Your task to perform on an android device: Search for seafood restaurants on Google Maps Image 0: 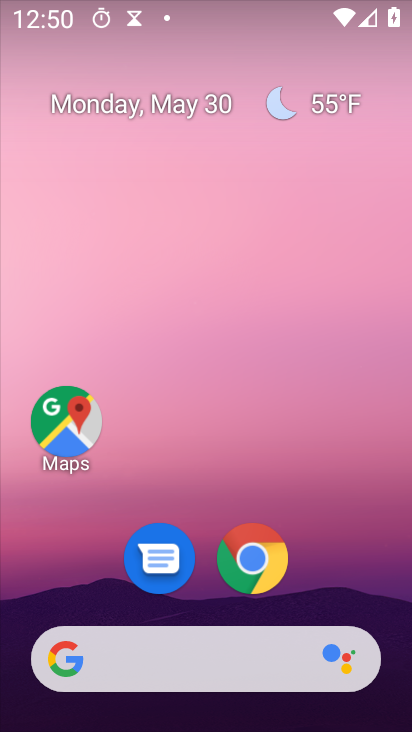
Step 0: drag from (335, 552) to (403, 4)
Your task to perform on an android device: Search for seafood restaurants on Google Maps Image 1: 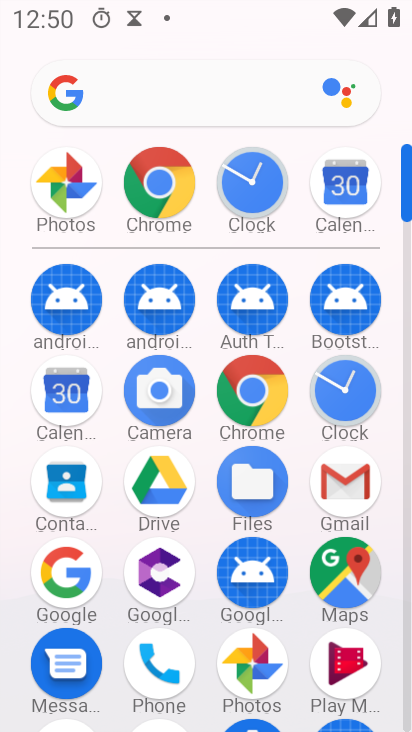
Step 1: click (345, 571)
Your task to perform on an android device: Search for seafood restaurants on Google Maps Image 2: 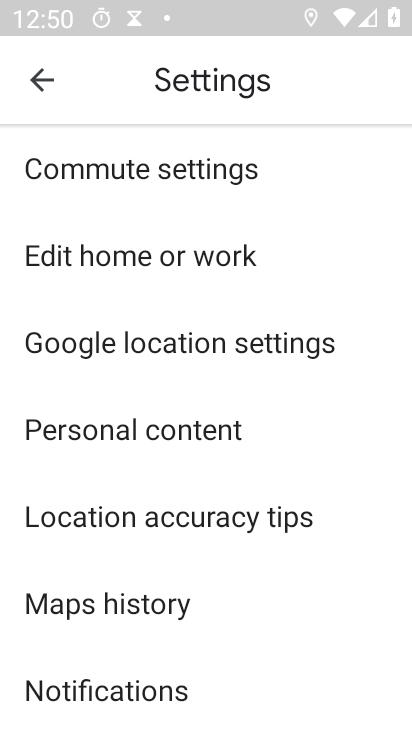
Step 2: press home button
Your task to perform on an android device: Search for seafood restaurants on Google Maps Image 3: 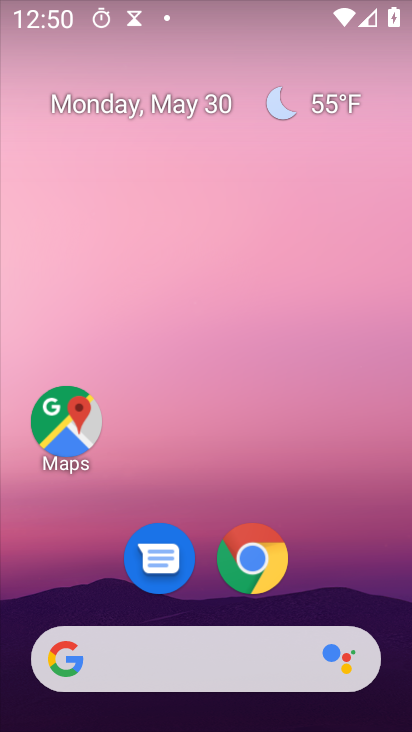
Step 3: drag from (382, 520) to (408, 124)
Your task to perform on an android device: Search for seafood restaurants on Google Maps Image 4: 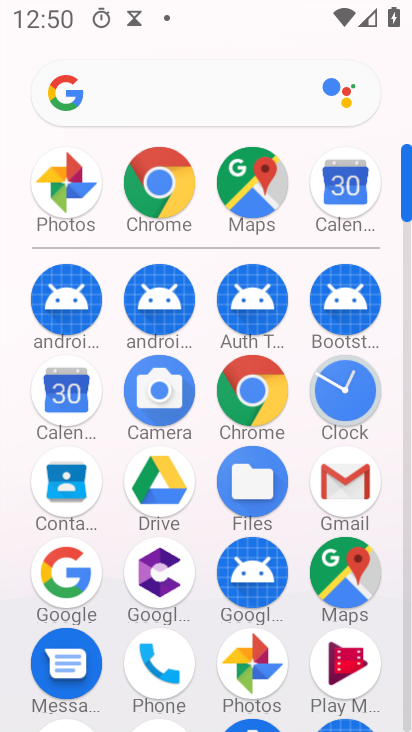
Step 4: click (243, 179)
Your task to perform on an android device: Search for seafood restaurants on Google Maps Image 5: 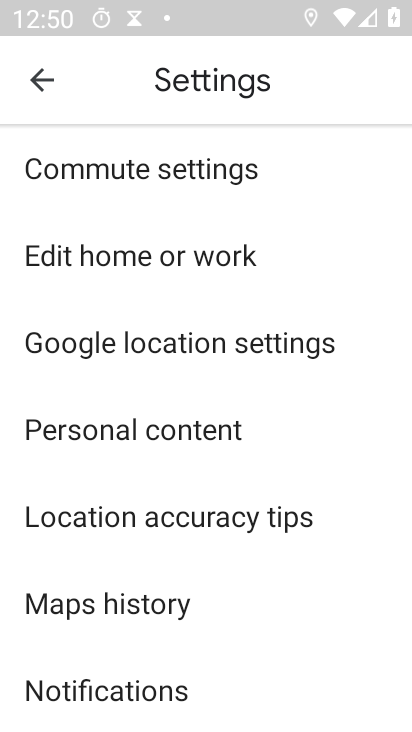
Step 5: click (49, 86)
Your task to perform on an android device: Search for seafood restaurants on Google Maps Image 6: 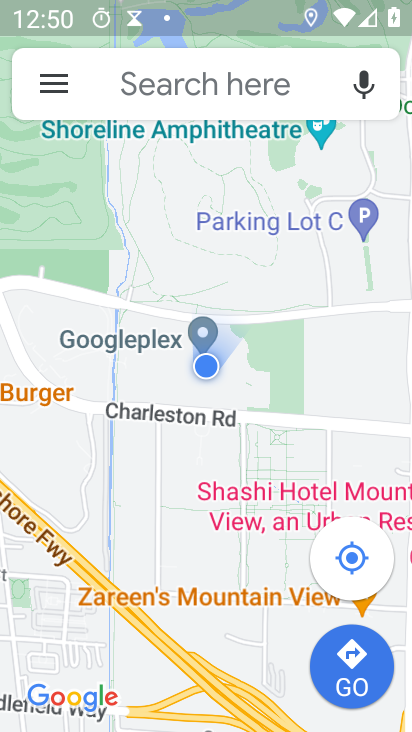
Step 6: click (192, 67)
Your task to perform on an android device: Search for seafood restaurants on Google Maps Image 7: 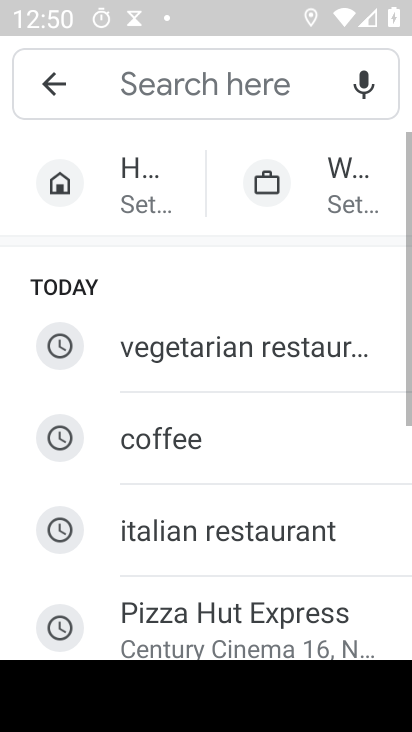
Step 7: drag from (291, 550) to (370, 154)
Your task to perform on an android device: Search for seafood restaurants on Google Maps Image 8: 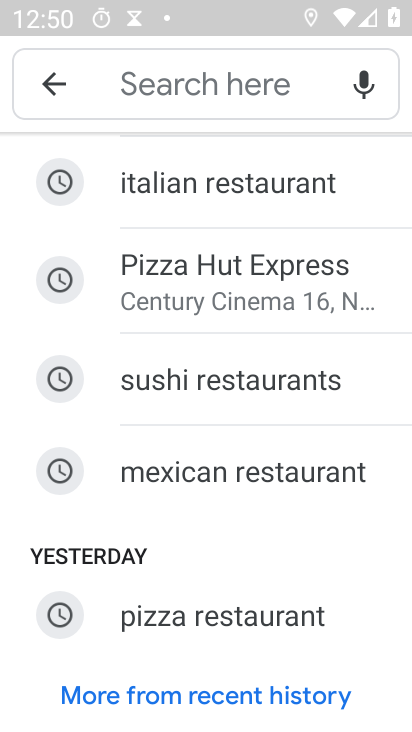
Step 8: drag from (251, 542) to (312, 195)
Your task to perform on an android device: Search for seafood restaurants on Google Maps Image 9: 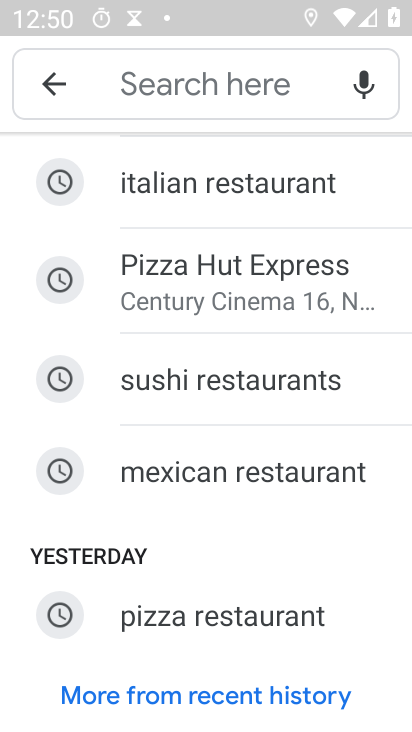
Step 9: drag from (224, 590) to (289, 228)
Your task to perform on an android device: Search for seafood restaurants on Google Maps Image 10: 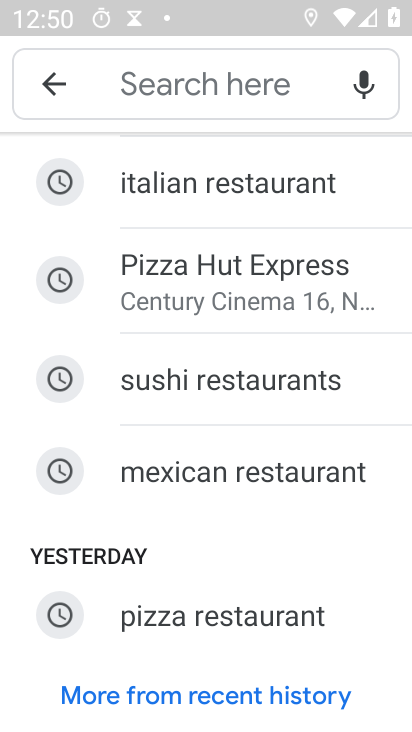
Step 10: drag from (215, 596) to (283, 214)
Your task to perform on an android device: Search for seafood restaurants on Google Maps Image 11: 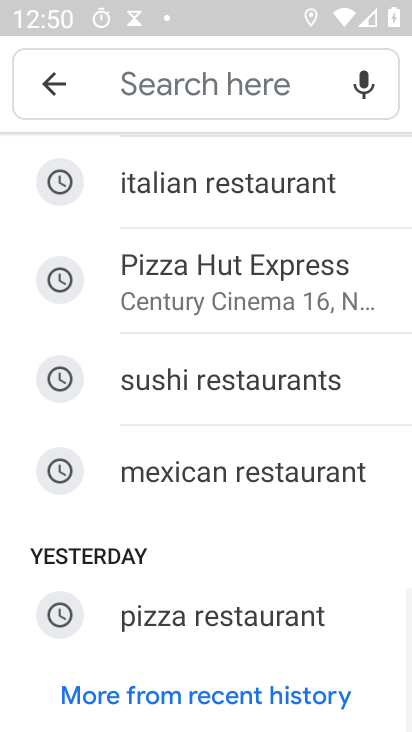
Step 11: drag from (219, 249) to (226, 593)
Your task to perform on an android device: Search for seafood restaurants on Google Maps Image 12: 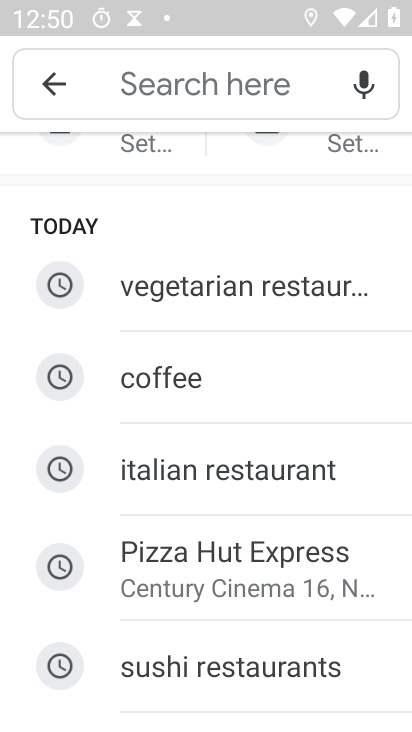
Step 12: drag from (302, 250) to (262, 620)
Your task to perform on an android device: Search for seafood restaurants on Google Maps Image 13: 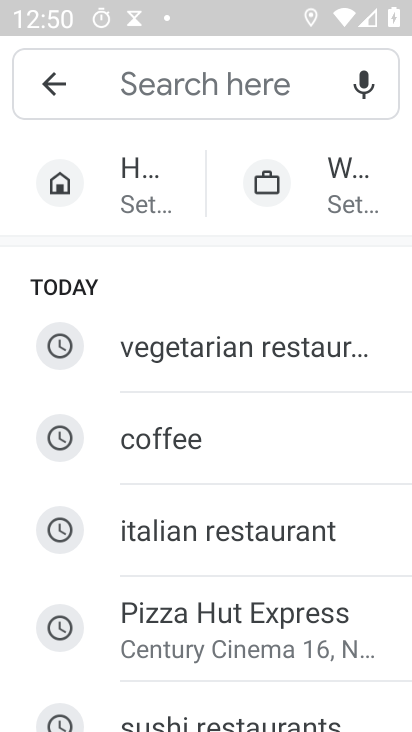
Step 13: drag from (261, 598) to (337, 180)
Your task to perform on an android device: Search for seafood restaurants on Google Maps Image 14: 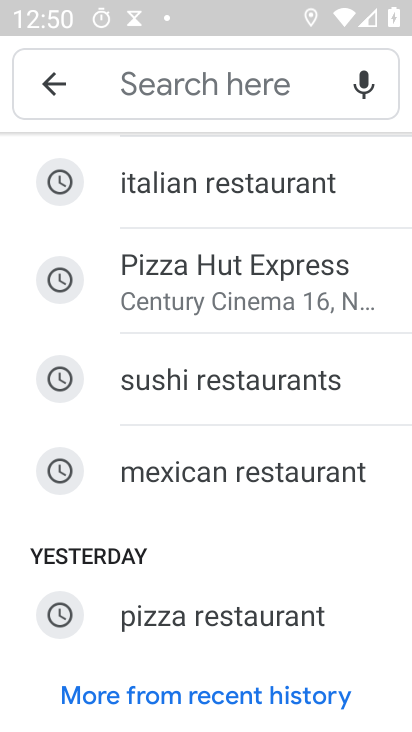
Step 14: drag from (145, 609) to (213, 234)
Your task to perform on an android device: Search for seafood restaurants on Google Maps Image 15: 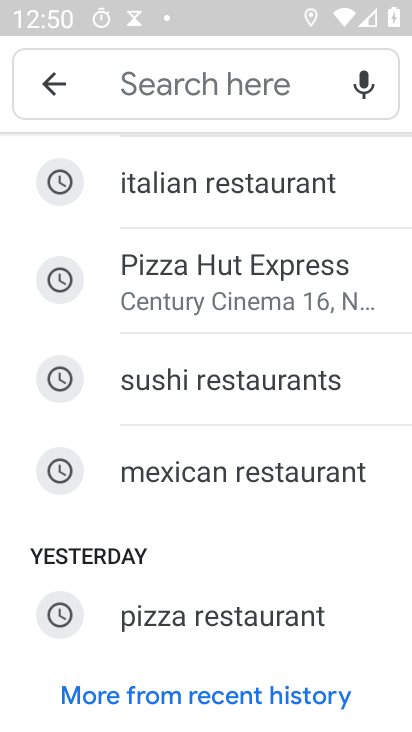
Step 15: click (133, 690)
Your task to perform on an android device: Search for seafood restaurants on Google Maps Image 16: 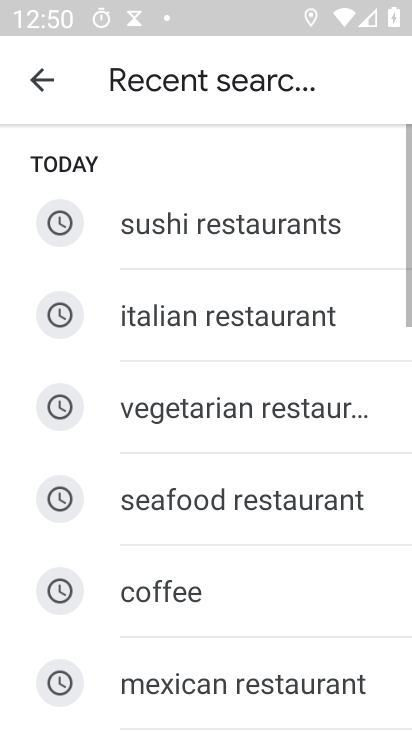
Step 16: drag from (155, 625) to (256, 173)
Your task to perform on an android device: Search for seafood restaurants on Google Maps Image 17: 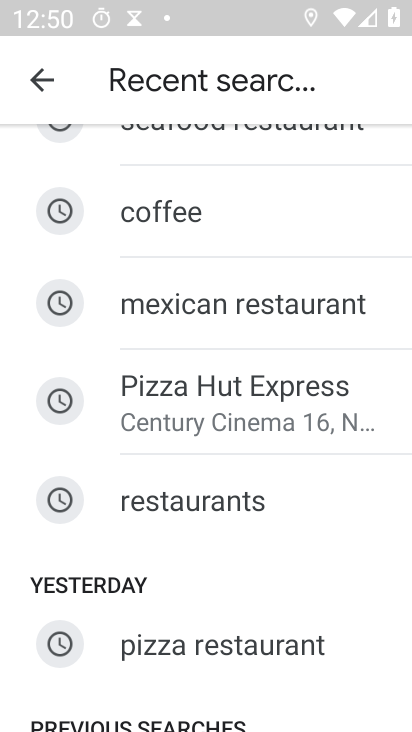
Step 17: drag from (235, 564) to (321, 101)
Your task to perform on an android device: Search for seafood restaurants on Google Maps Image 18: 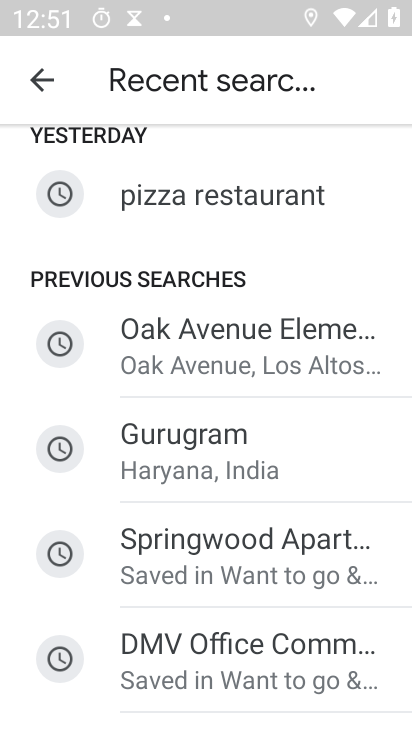
Step 18: drag from (258, 221) to (238, 670)
Your task to perform on an android device: Search for seafood restaurants on Google Maps Image 19: 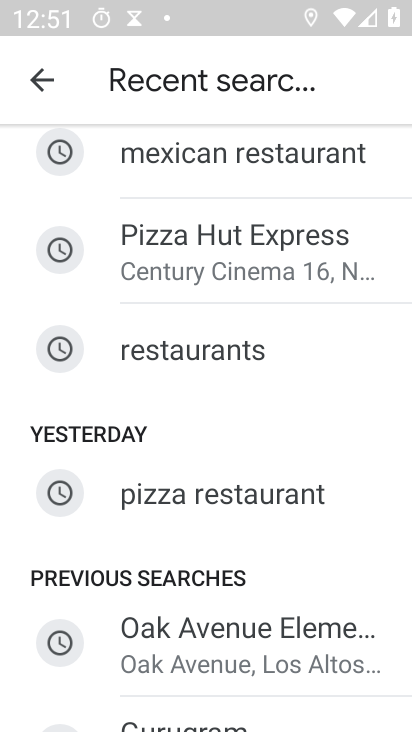
Step 19: drag from (274, 249) to (232, 661)
Your task to perform on an android device: Search for seafood restaurants on Google Maps Image 20: 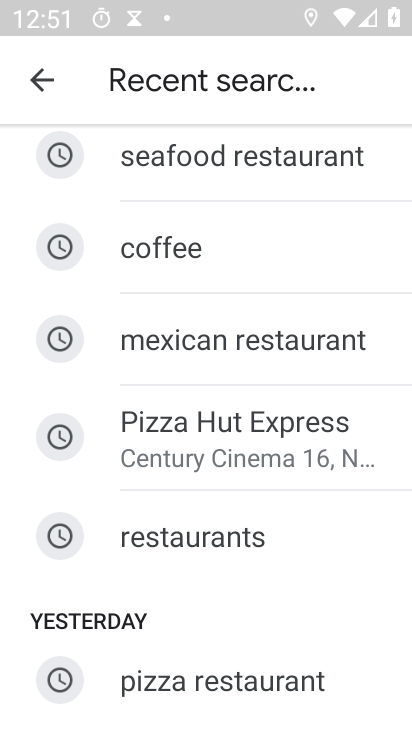
Step 20: drag from (220, 271) to (250, 676)
Your task to perform on an android device: Search for seafood restaurants on Google Maps Image 21: 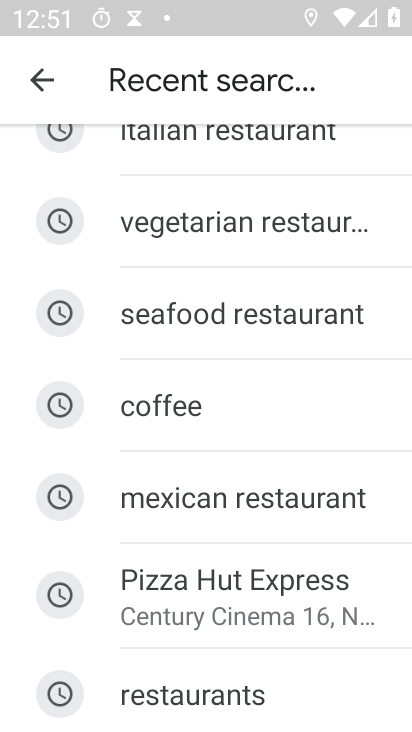
Step 21: drag from (188, 168) to (208, 534)
Your task to perform on an android device: Search for seafood restaurants on Google Maps Image 22: 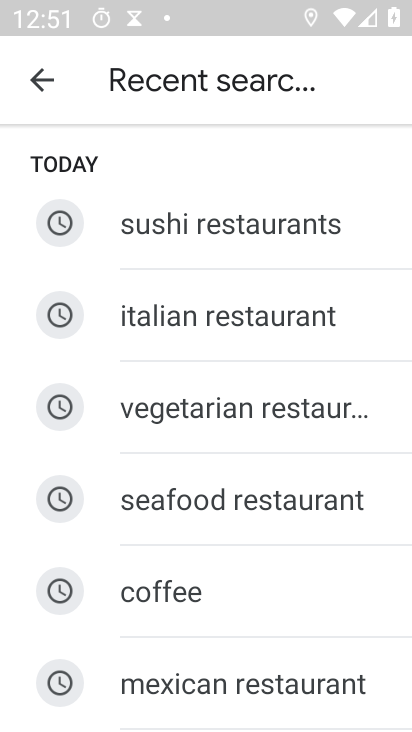
Step 22: click (177, 512)
Your task to perform on an android device: Search for seafood restaurants on Google Maps Image 23: 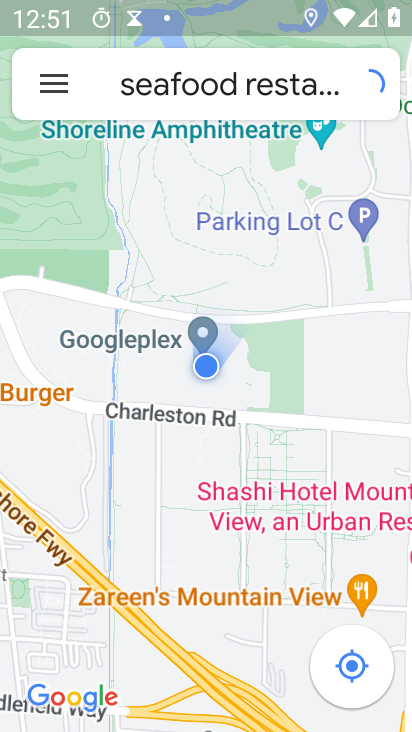
Step 23: task complete